Your task to perform on an android device: turn vacation reply on in the gmail app Image 0: 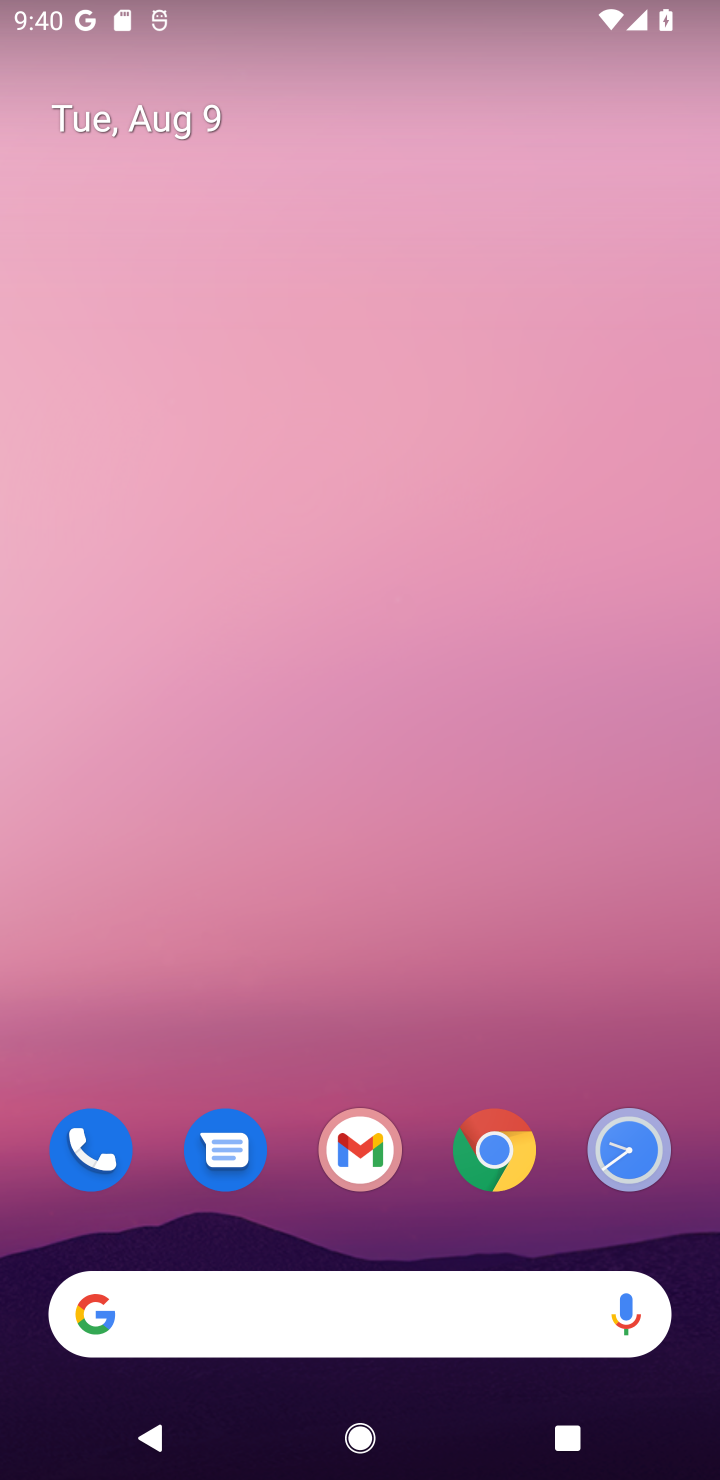
Step 0: drag from (341, 1315) to (80, 266)
Your task to perform on an android device: turn vacation reply on in the gmail app Image 1: 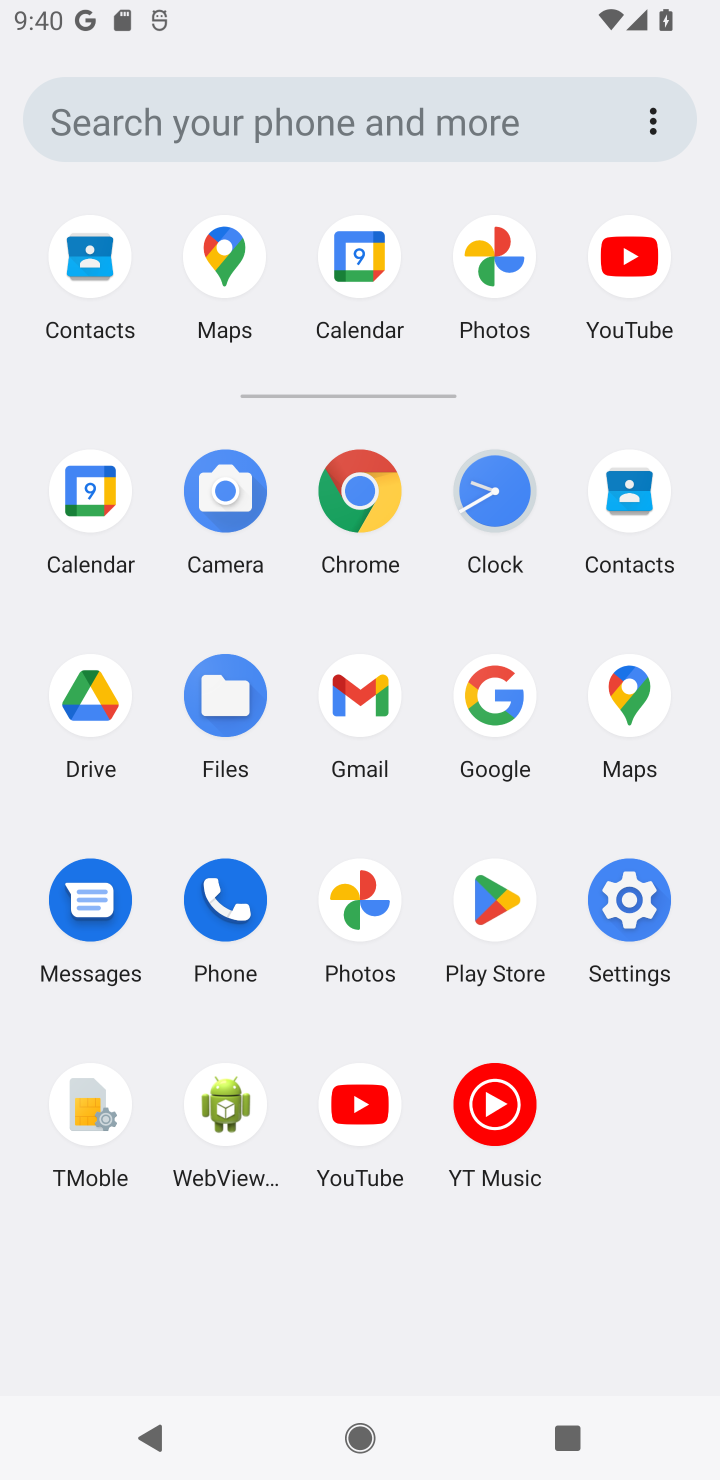
Step 1: click (330, 754)
Your task to perform on an android device: turn vacation reply on in the gmail app Image 2: 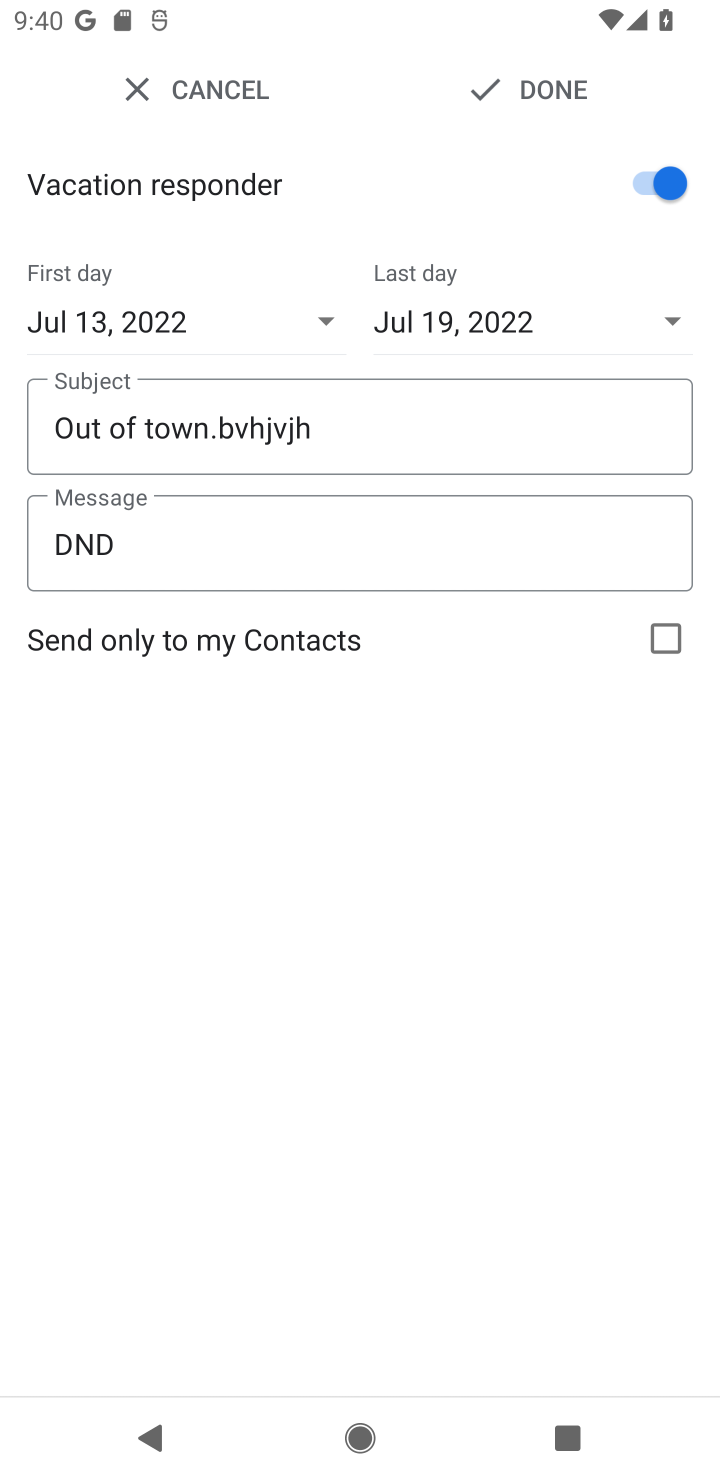
Step 2: task complete